Your task to perform on an android device: delete a single message in the gmail app Image 0: 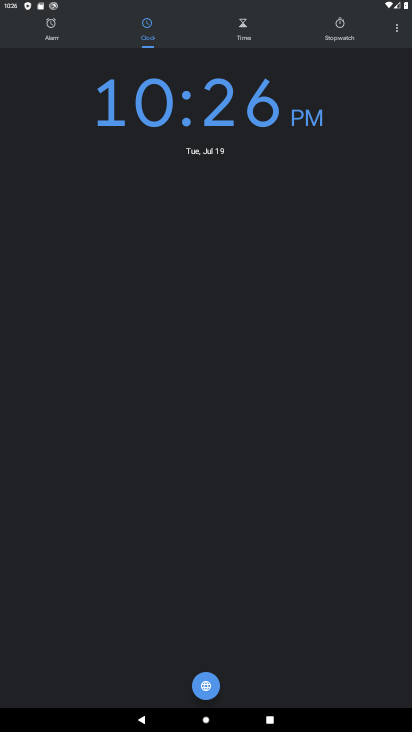
Step 0: press home button
Your task to perform on an android device: delete a single message in the gmail app Image 1: 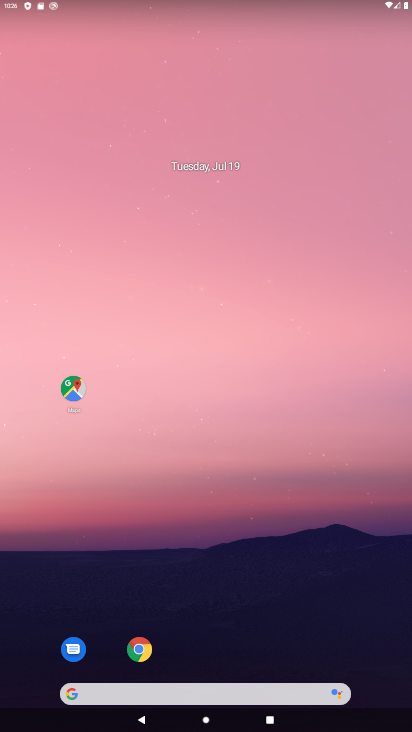
Step 1: drag from (247, 659) to (329, 100)
Your task to perform on an android device: delete a single message in the gmail app Image 2: 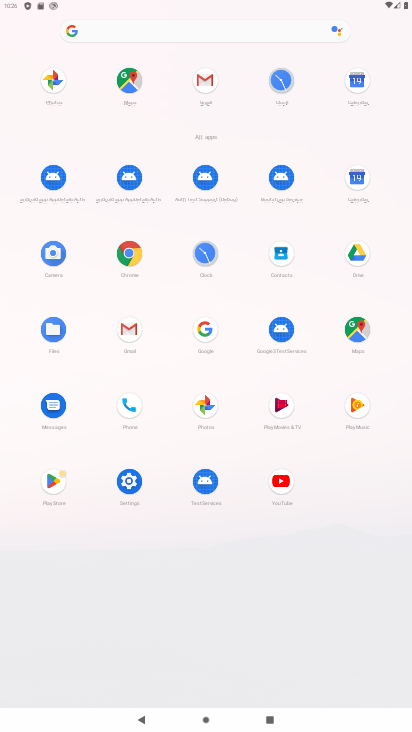
Step 2: click (142, 330)
Your task to perform on an android device: delete a single message in the gmail app Image 3: 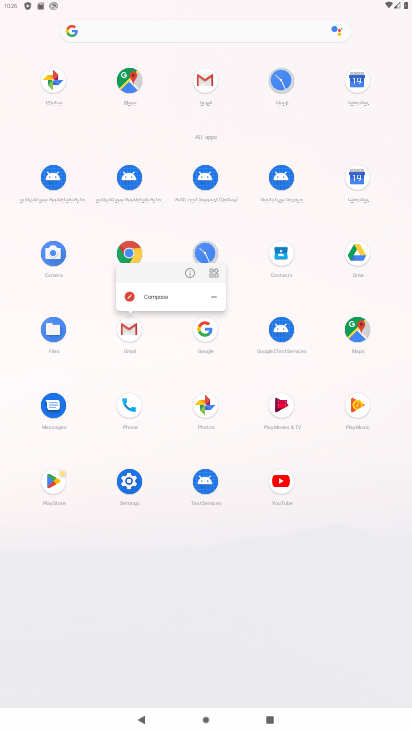
Step 3: click (131, 332)
Your task to perform on an android device: delete a single message in the gmail app Image 4: 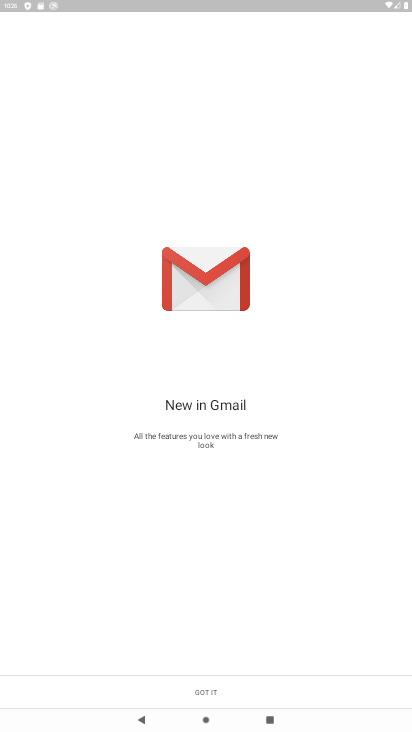
Step 4: click (186, 671)
Your task to perform on an android device: delete a single message in the gmail app Image 5: 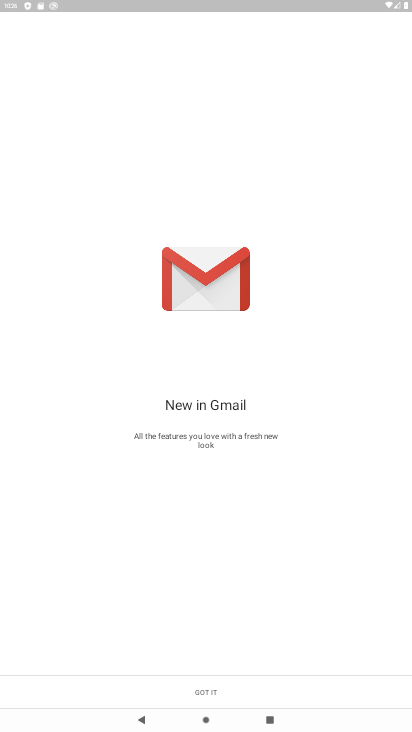
Step 5: click (218, 693)
Your task to perform on an android device: delete a single message in the gmail app Image 6: 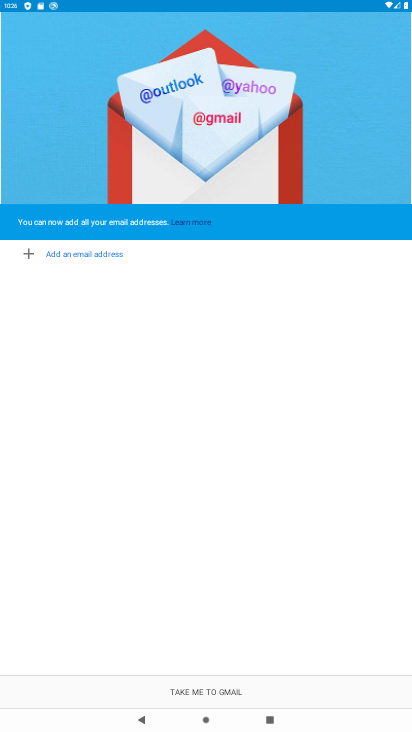
Step 6: click (220, 684)
Your task to perform on an android device: delete a single message in the gmail app Image 7: 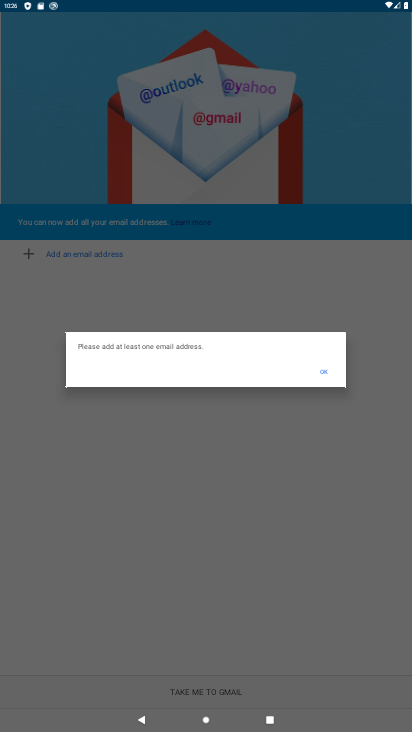
Step 7: task complete